Your task to perform on an android device: Do I have any events this weekend? Image 0: 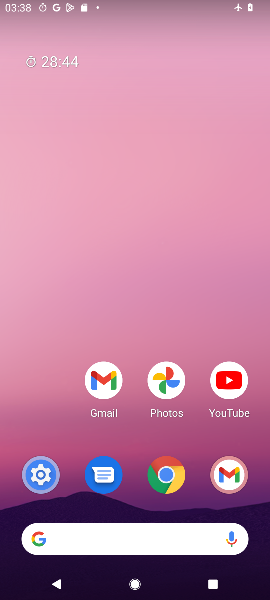
Step 0: drag from (57, 430) to (41, 217)
Your task to perform on an android device: Do I have any events this weekend? Image 1: 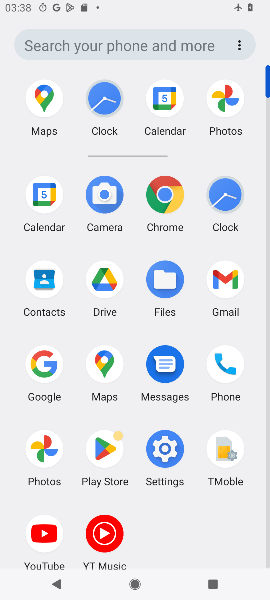
Step 1: click (41, 216)
Your task to perform on an android device: Do I have any events this weekend? Image 2: 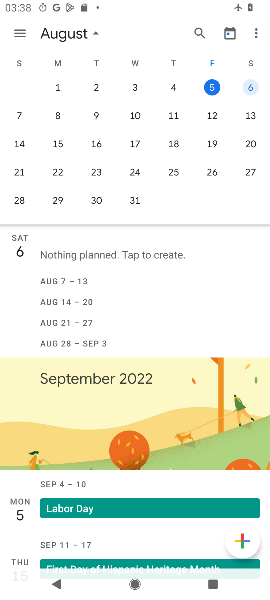
Step 2: task complete